Your task to perform on an android device: Play the last video I watched on Youtube Image 0: 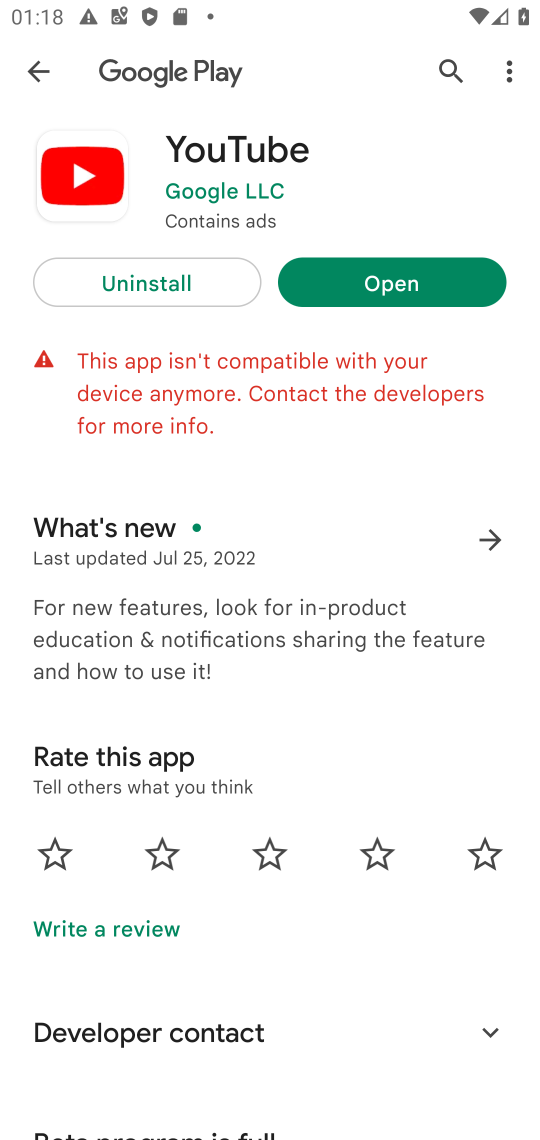
Step 0: press home button
Your task to perform on an android device: Play the last video I watched on Youtube Image 1: 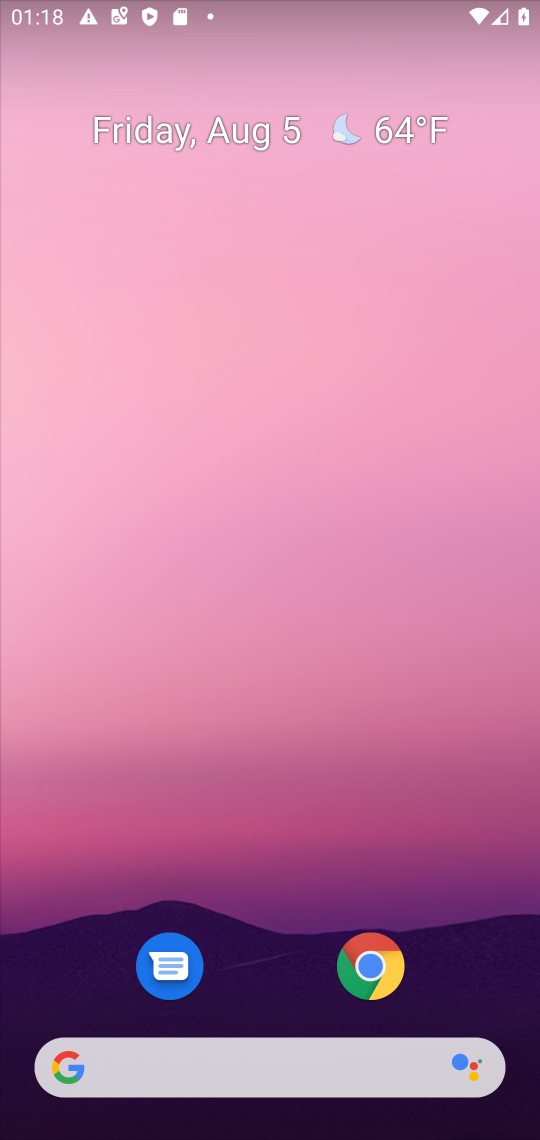
Step 1: drag from (300, 832) to (382, 3)
Your task to perform on an android device: Play the last video I watched on Youtube Image 2: 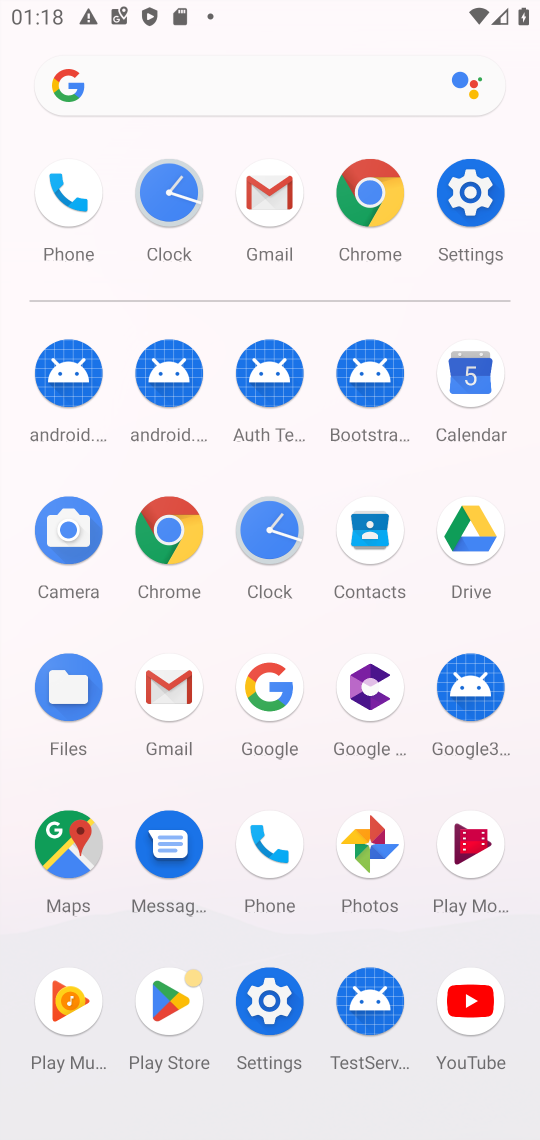
Step 2: click (478, 984)
Your task to perform on an android device: Play the last video I watched on Youtube Image 3: 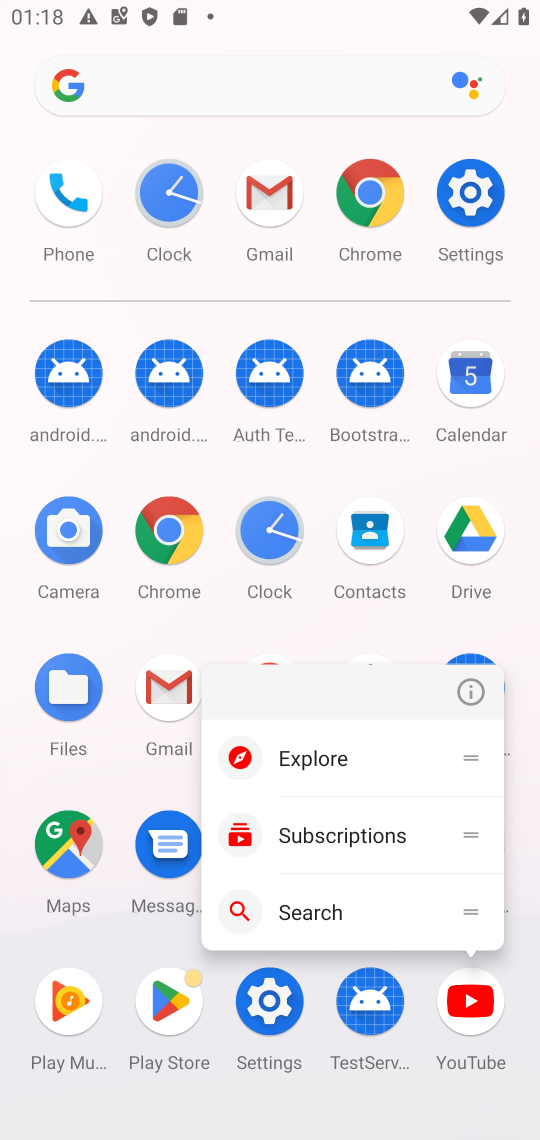
Step 3: click (475, 1005)
Your task to perform on an android device: Play the last video I watched on Youtube Image 4: 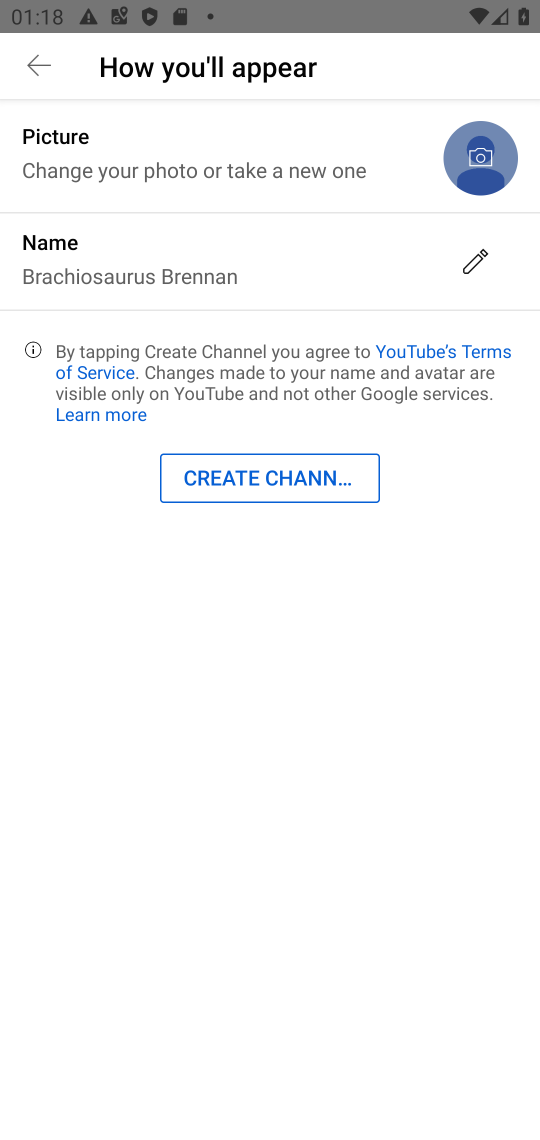
Step 4: click (33, 53)
Your task to perform on an android device: Play the last video I watched on Youtube Image 5: 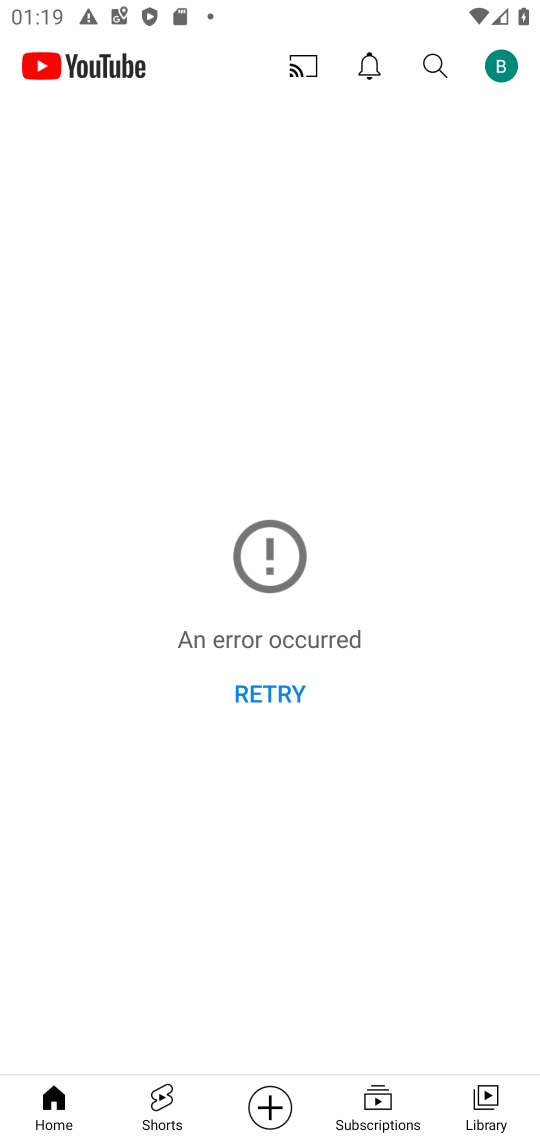
Step 5: click (487, 1091)
Your task to perform on an android device: Play the last video I watched on Youtube Image 6: 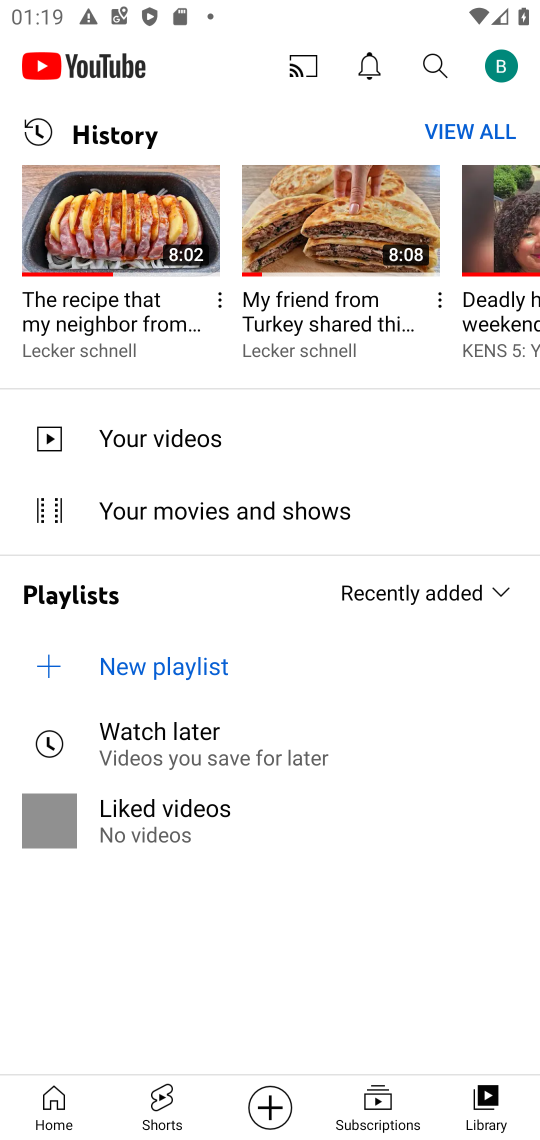
Step 6: click (123, 220)
Your task to perform on an android device: Play the last video I watched on Youtube Image 7: 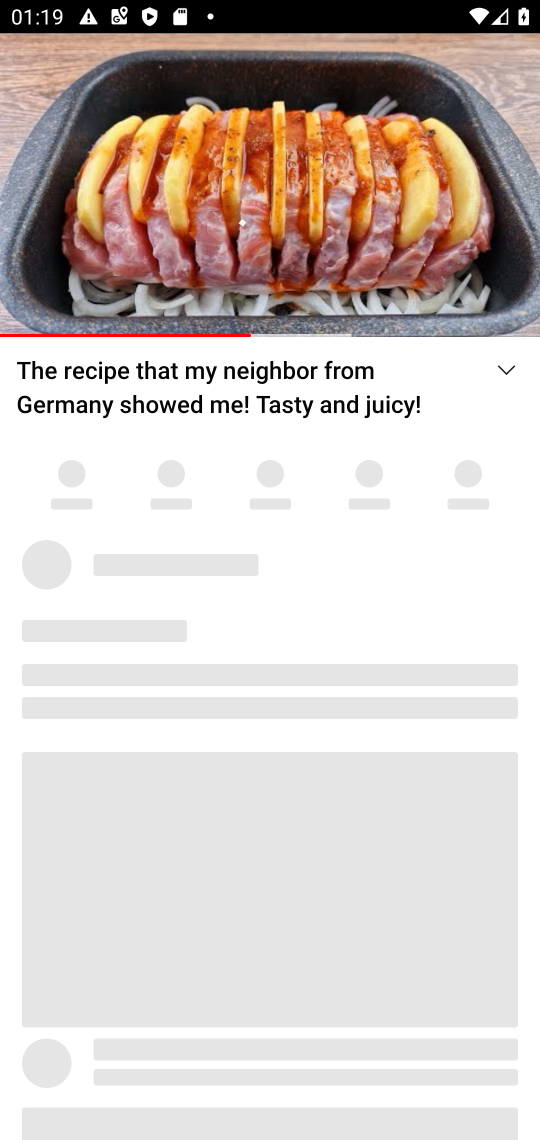
Step 7: task complete